Your task to perform on an android device: turn off wifi Image 0: 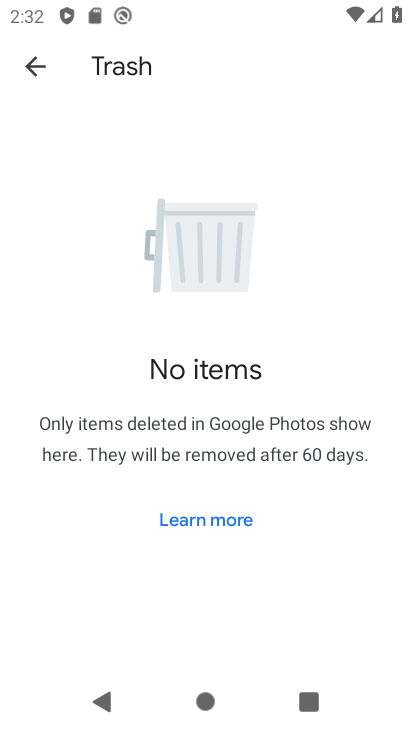
Step 0: press home button
Your task to perform on an android device: turn off wifi Image 1: 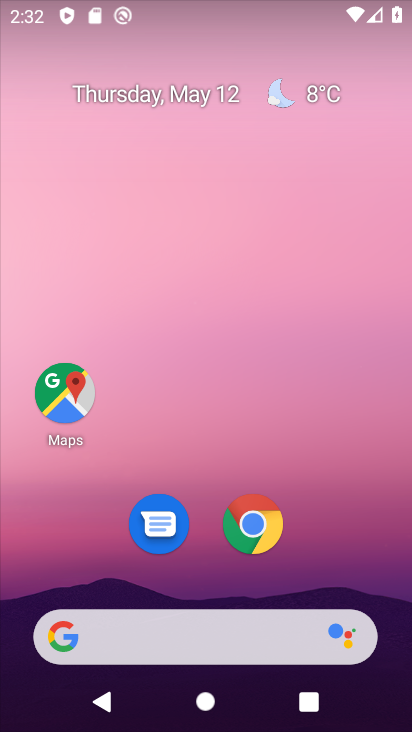
Step 1: drag from (292, 437) to (311, 14)
Your task to perform on an android device: turn off wifi Image 2: 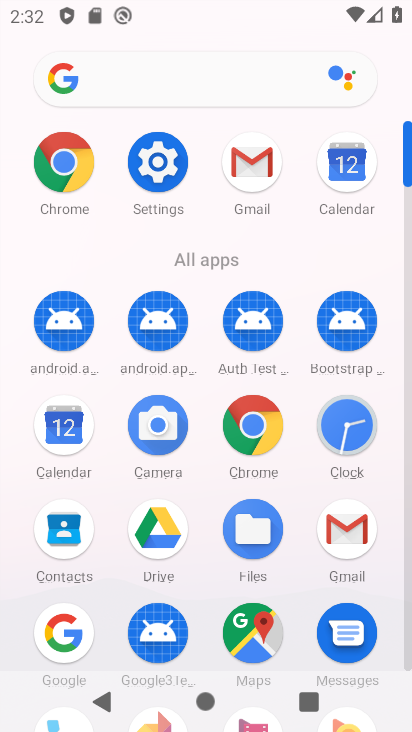
Step 2: click (179, 160)
Your task to perform on an android device: turn off wifi Image 3: 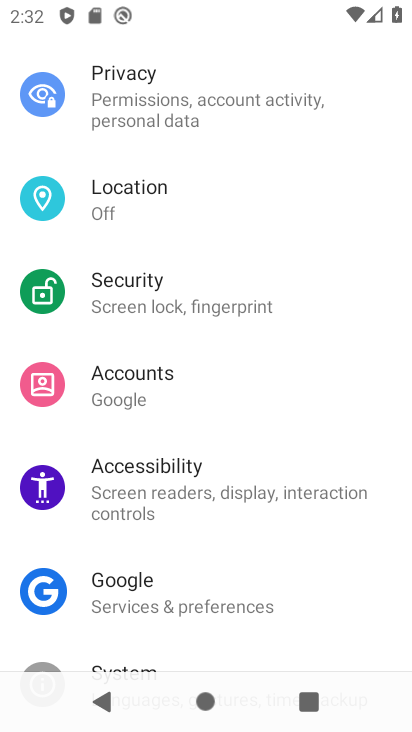
Step 3: drag from (195, 142) to (223, 677)
Your task to perform on an android device: turn off wifi Image 4: 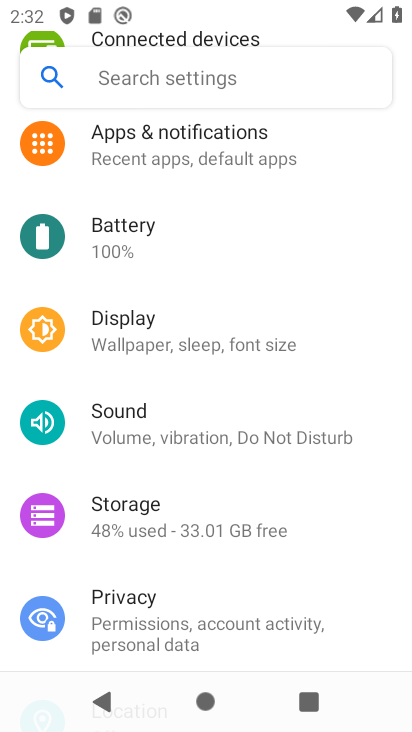
Step 4: drag from (190, 224) to (199, 595)
Your task to perform on an android device: turn off wifi Image 5: 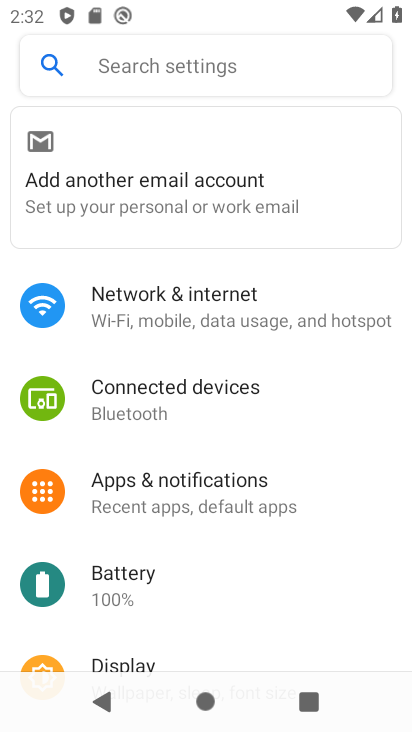
Step 5: click (185, 315)
Your task to perform on an android device: turn off wifi Image 6: 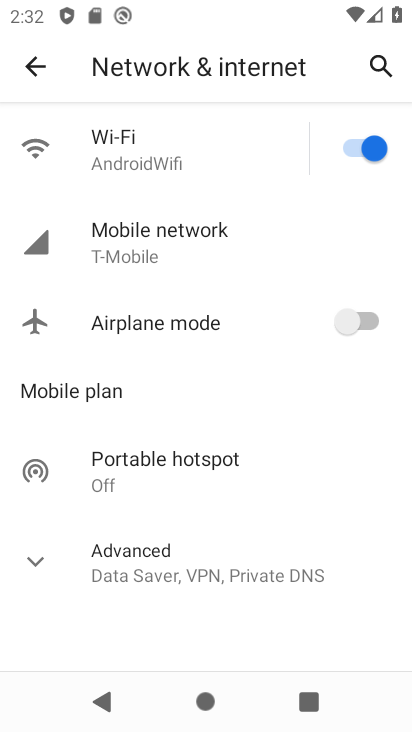
Step 6: click (354, 151)
Your task to perform on an android device: turn off wifi Image 7: 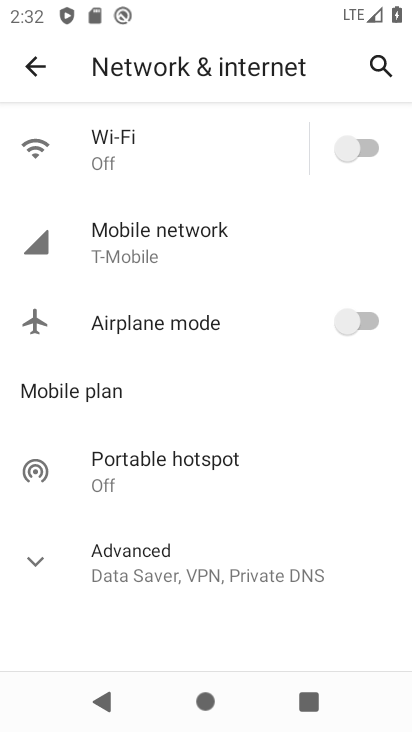
Step 7: task complete